Your task to perform on an android device: Search for pizza restaurants on Maps Image 0: 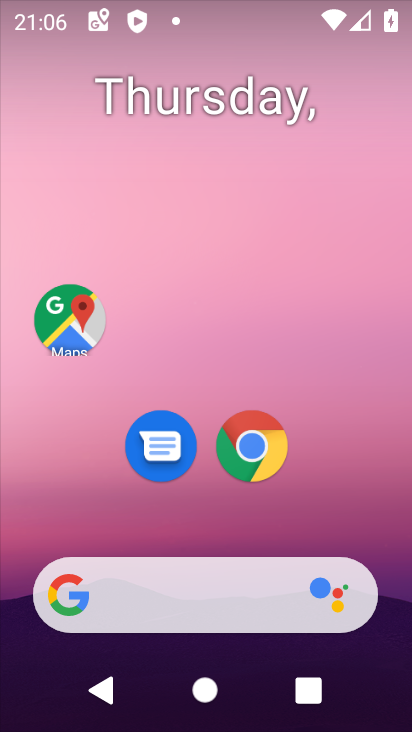
Step 0: press home button
Your task to perform on an android device: Search for pizza restaurants on Maps Image 1: 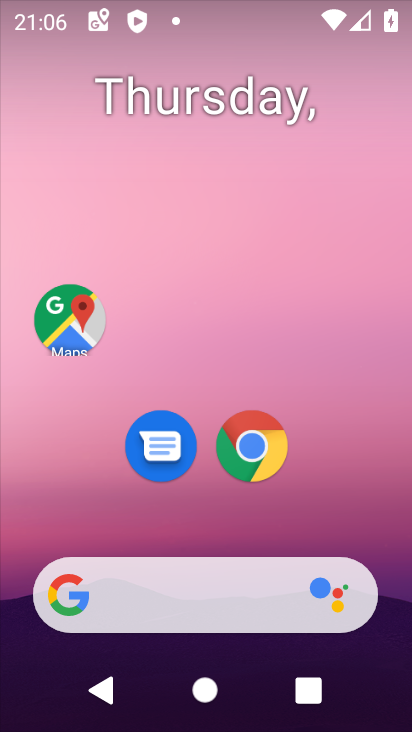
Step 1: click (90, 343)
Your task to perform on an android device: Search for pizza restaurants on Maps Image 2: 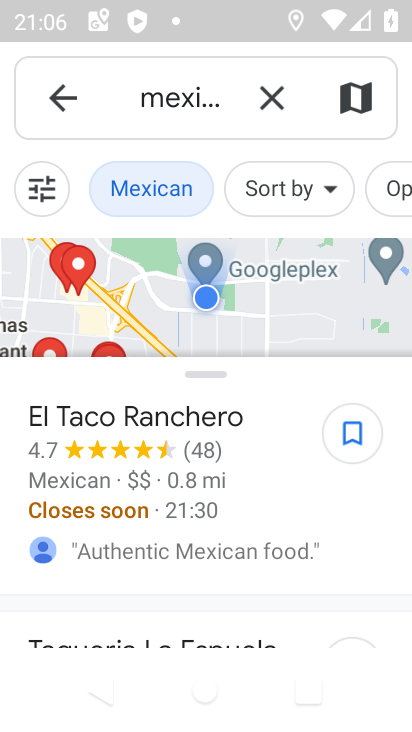
Step 2: click (263, 96)
Your task to perform on an android device: Search for pizza restaurants on Maps Image 3: 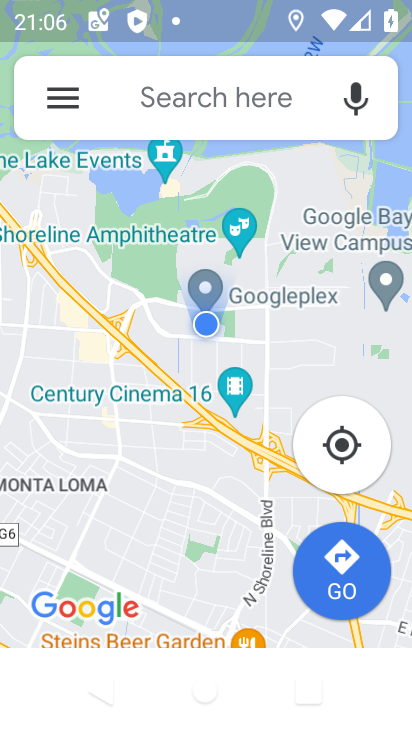
Step 3: click (148, 102)
Your task to perform on an android device: Search for pizza restaurants on Maps Image 4: 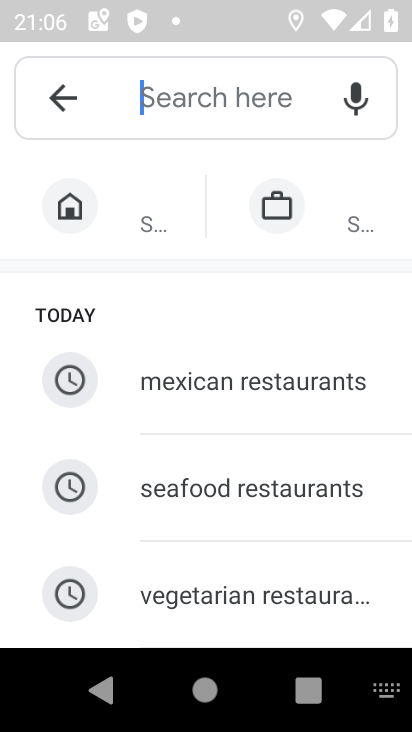
Step 4: type " pizza restaurants "
Your task to perform on an android device: Search for pizza restaurants on Maps Image 5: 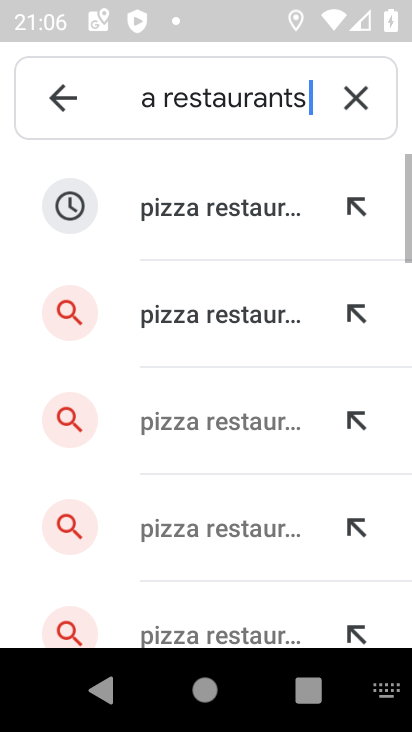
Step 5: click (204, 196)
Your task to perform on an android device: Search for pizza restaurants on Maps Image 6: 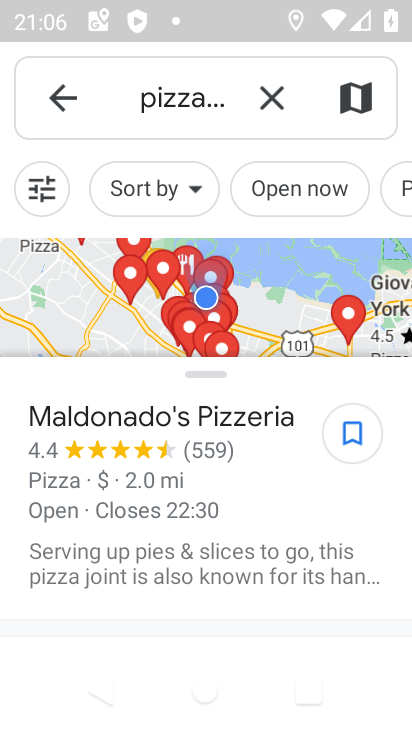
Step 6: task complete